Your task to perform on an android device: Open sound settings Image 0: 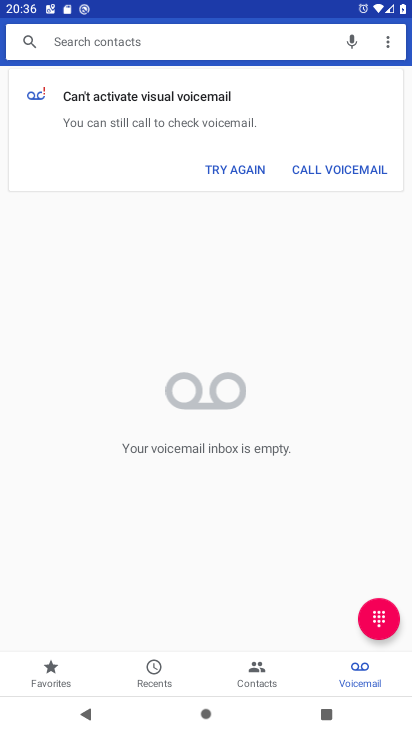
Step 0: press home button
Your task to perform on an android device: Open sound settings Image 1: 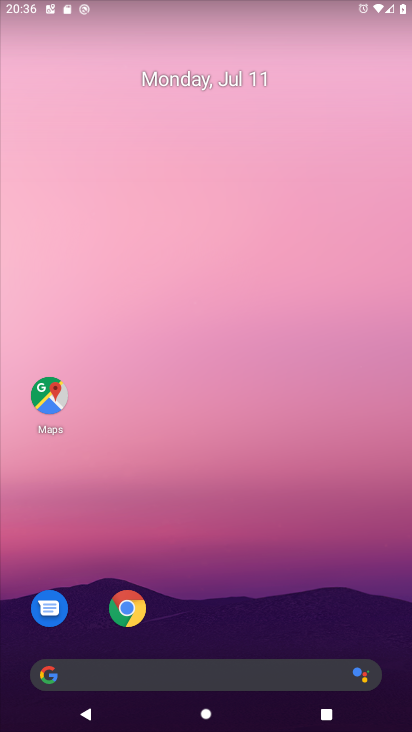
Step 1: drag from (225, 606) to (222, 399)
Your task to perform on an android device: Open sound settings Image 2: 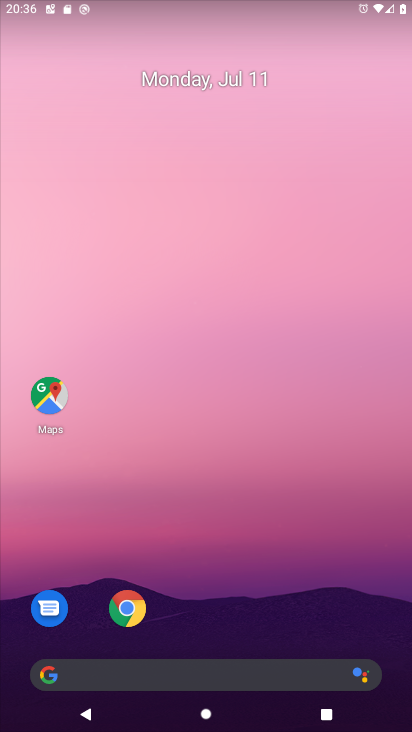
Step 2: drag from (272, 609) to (253, 175)
Your task to perform on an android device: Open sound settings Image 3: 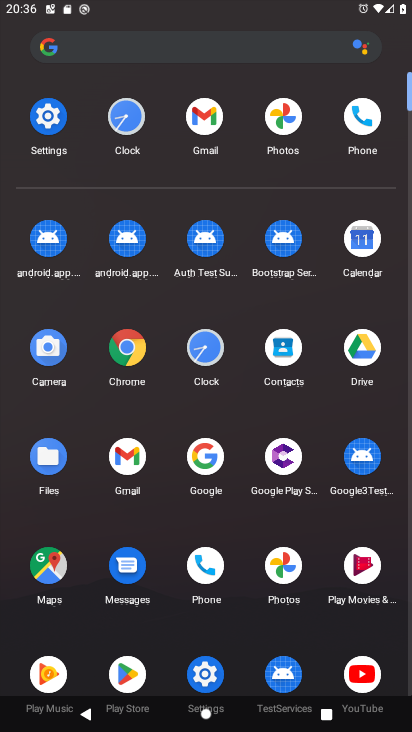
Step 3: click (59, 143)
Your task to perform on an android device: Open sound settings Image 4: 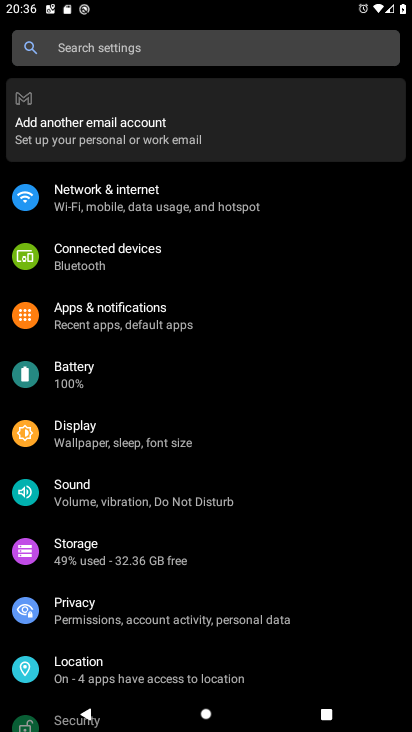
Step 4: click (99, 479)
Your task to perform on an android device: Open sound settings Image 5: 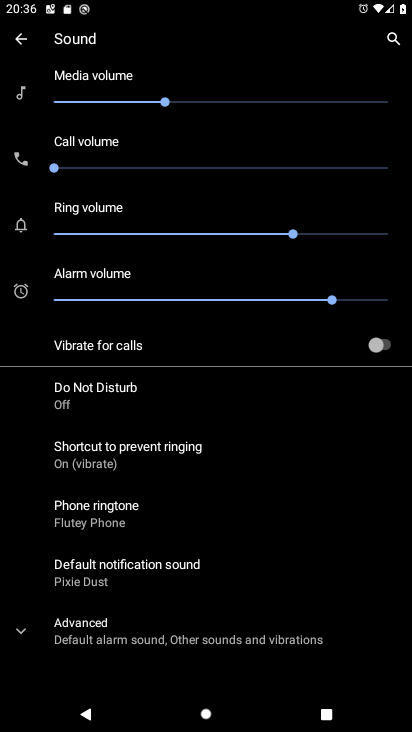
Step 5: task complete